Your task to perform on an android device: How do I get to the nearest McDonalds? Image 0: 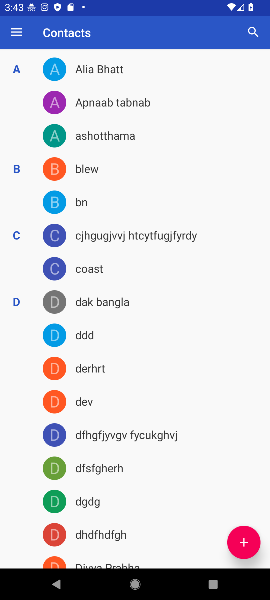
Step 0: press home button
Your task to perform on an android device: How do I get to the nearest McDonalds? Image 1: 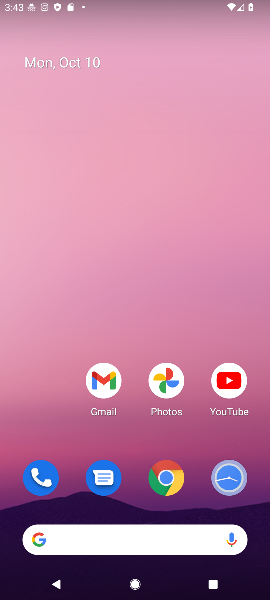
Step 1: click (169, 466)
Your task to perform on an android device: How do I get to the nearest McDonalds? Image 2: 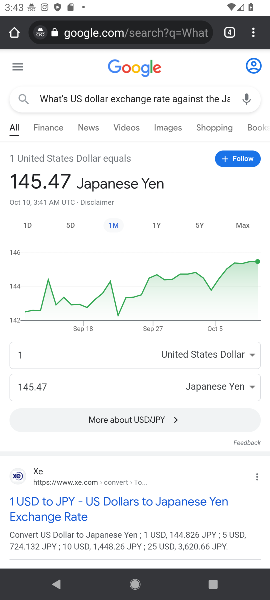
Step 2: click (111, 40)
Your task to perform on an android device: How do I get to the nearest McDonalds? Image 3: 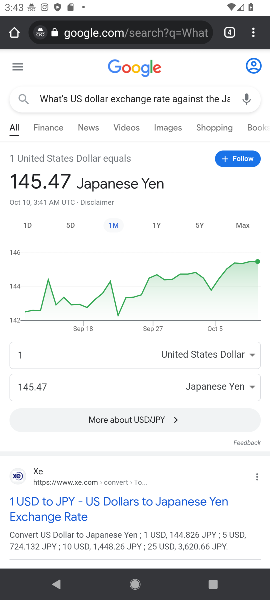
Step 3: click (111, 40)
Your task to perform on an android device: How do I get to the nearest McDonalds? Image 4: 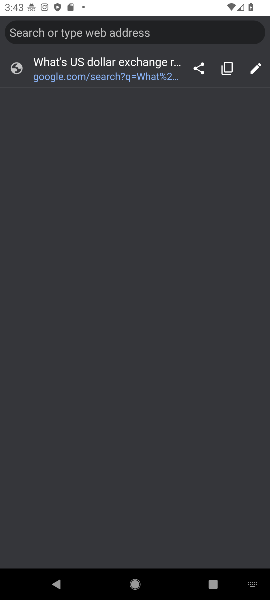
Step 4: type "How do I get to the nearest McDonalds?"
Your task to perform on an android device: How do I get to the nearest McDonalds? Image 5: 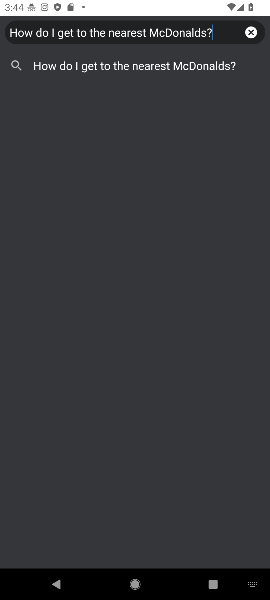
Step 5: click (175, 59)
Your task to perform on an android device: How do I get to the nearest McDonalds? Image 6: 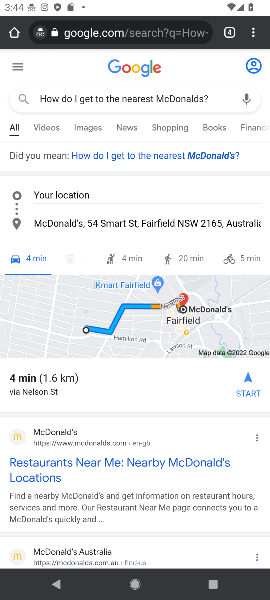
Step 6: task complete